Your task to perform on an android device: refresh tabs in the chrome app Image 0: 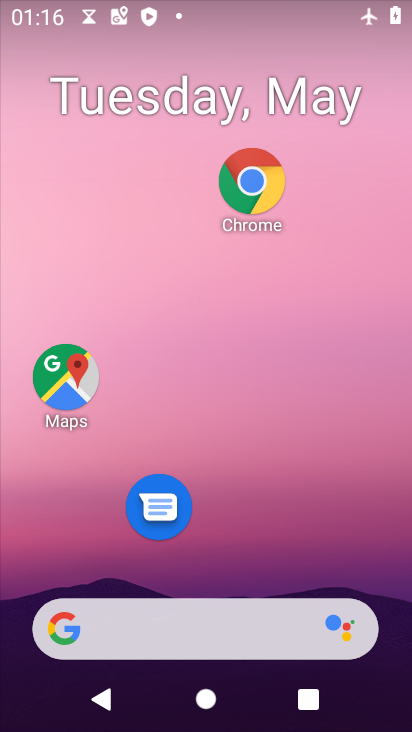
Step 0: drag from (316, 589) to (328, 290)
Your task to perform on an android device: refresh tabs in the chrome app Image 1: 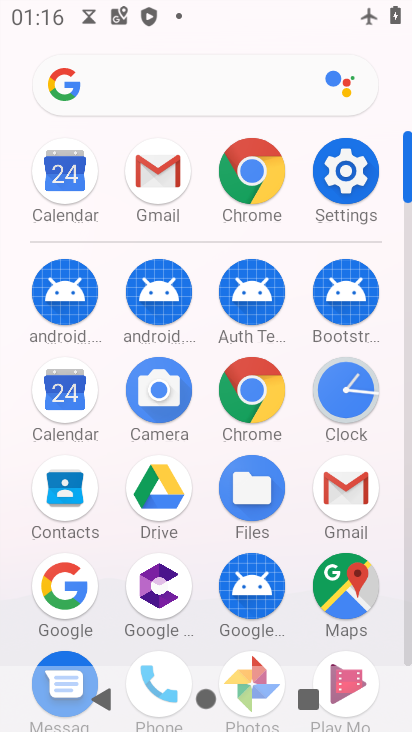
Step 1: click (251, 167)
Your task to perform on an android device: refresh tabs in the chrome app Image 2: 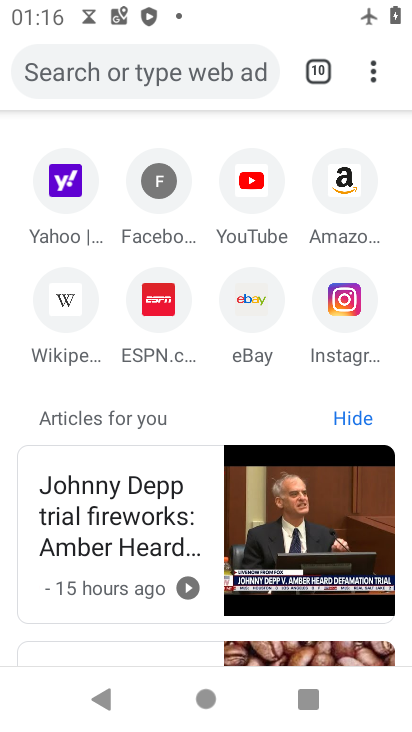
Step 2: click (380, 74)
Your task to perform on an android device: refresh tabs in the chrome app Image 3: 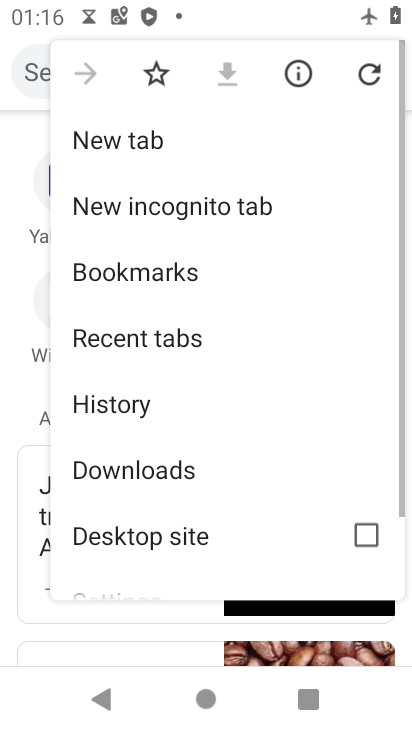
Step 3: click (367, 67)
Your task to perform on an android device: refresh tabs in the chrome app Image 4: 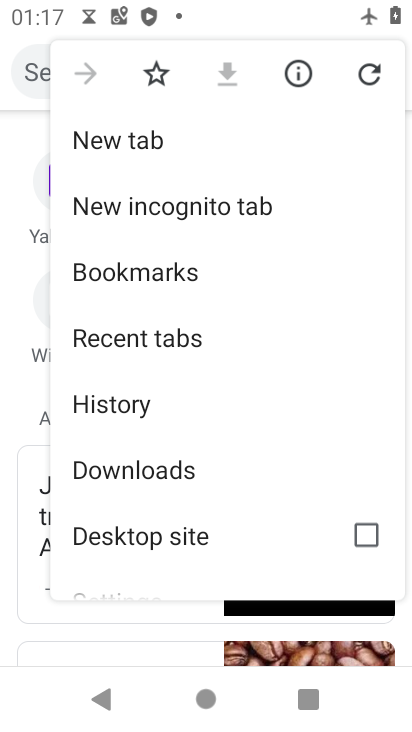
Step 4: click (370, 78)
Your task to perform on an android device: refresh tabs in the chrome app Image 5: 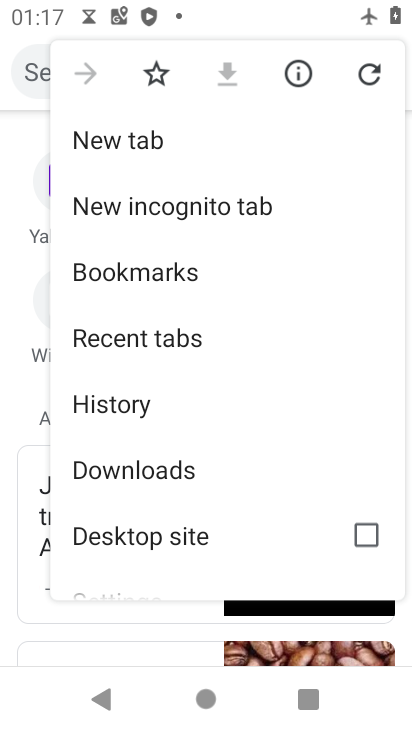
Step 5: task complete